Your task to perform on an android device: What's the weather today? Image 0: 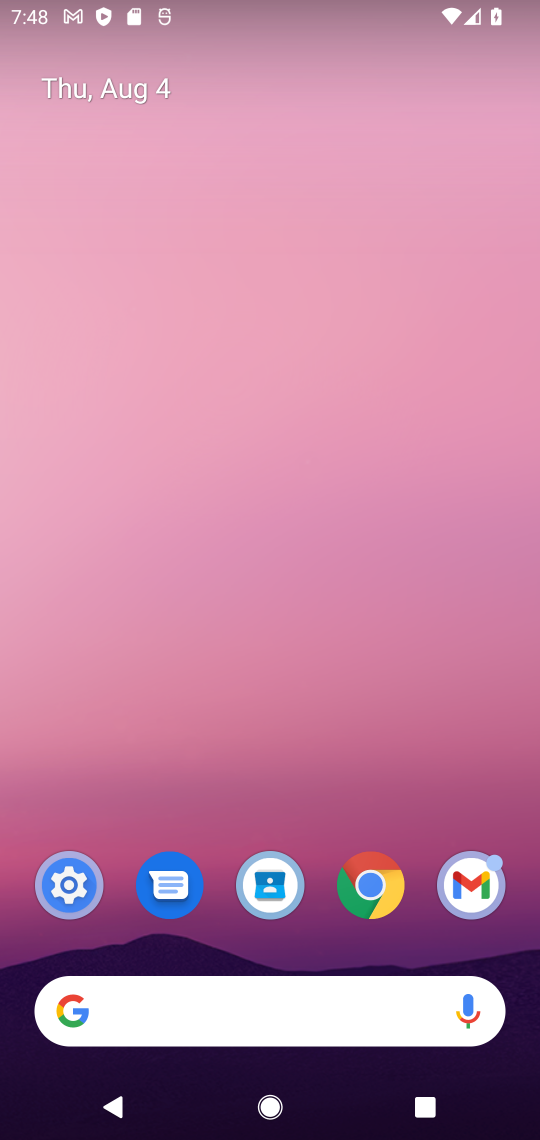
Step 0: press home button
Your task to perform on an android device: What's the weather today? Image 1: 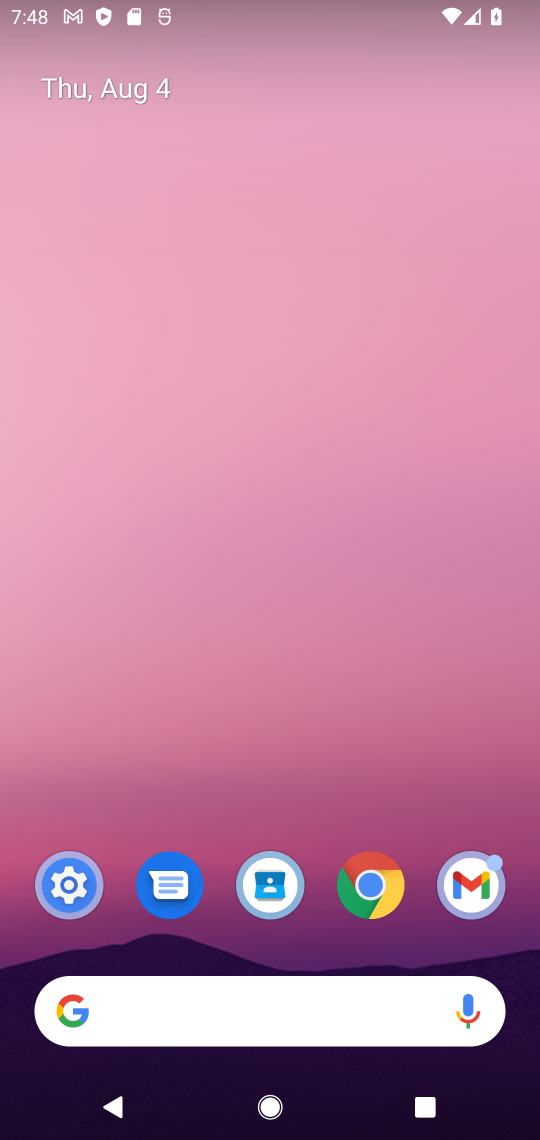
Step 1: press home button
Your task to perform on an android device: What's the weather today? Image 2: 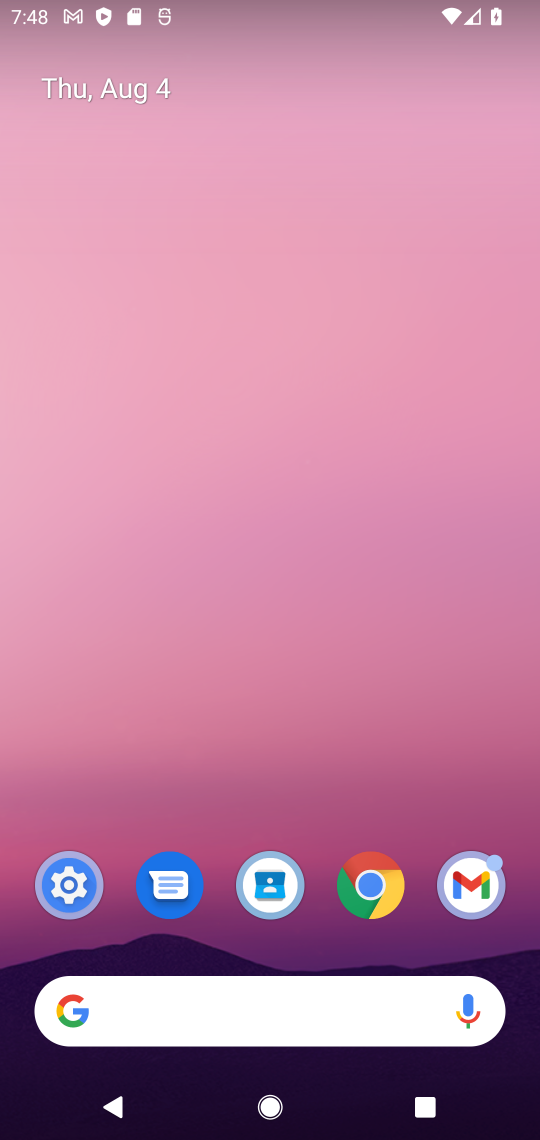
Step 2: click (366, 882)
Your task to perform on an android device: What's the weather today? Image 3: 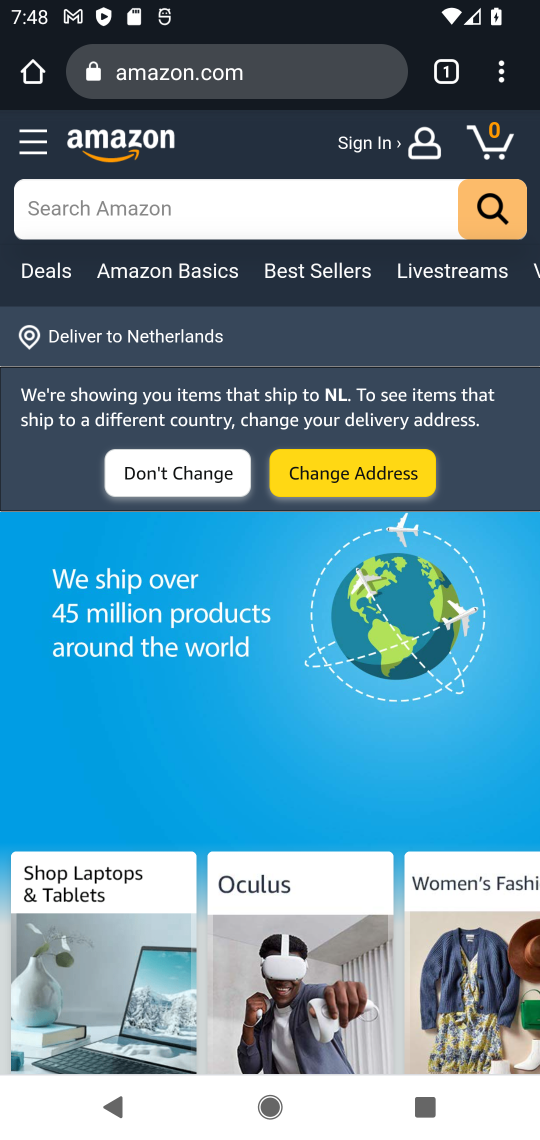
Step 3: click (254, 77)
Your task to perform on an android device: What's the weather today? Image 4: 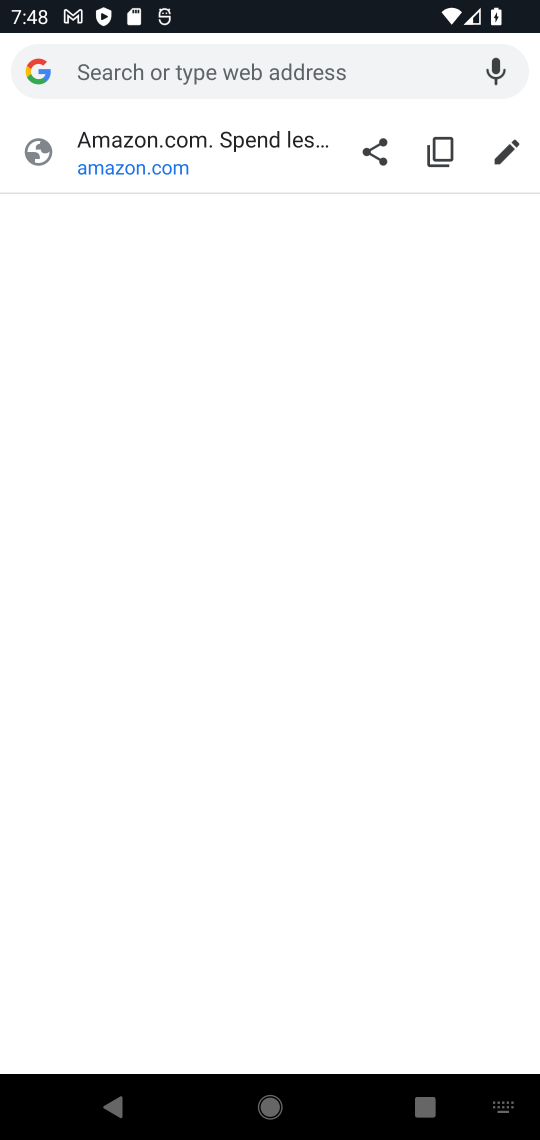
Step 4: type "What's the weather today"
Your task to perform on an android device: What's the weather today? Image 5: 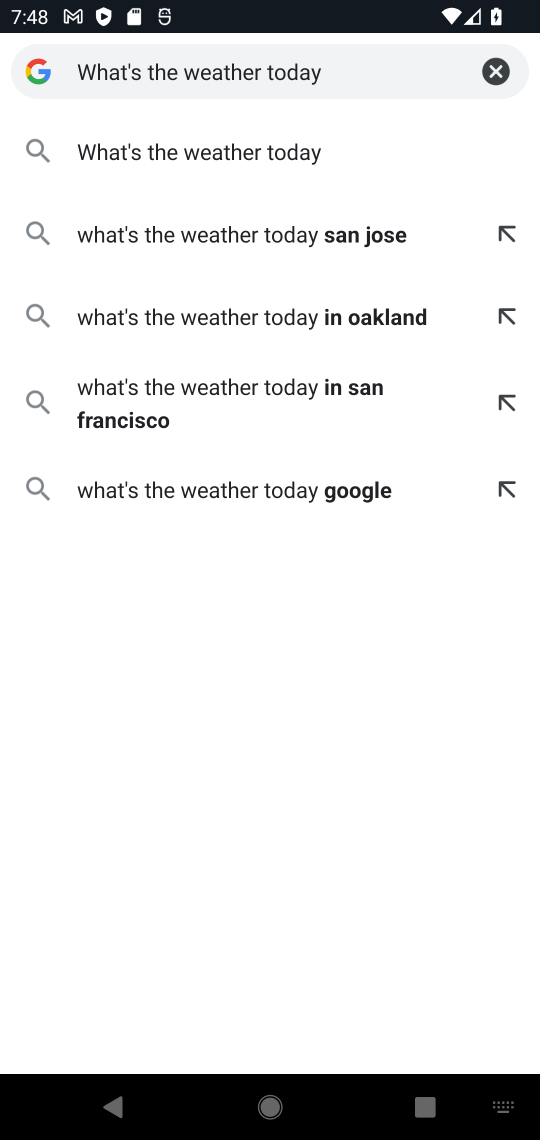
Step 5: click (223, 155)
Your task to perform on an android device: What's the weather today? Image 6: 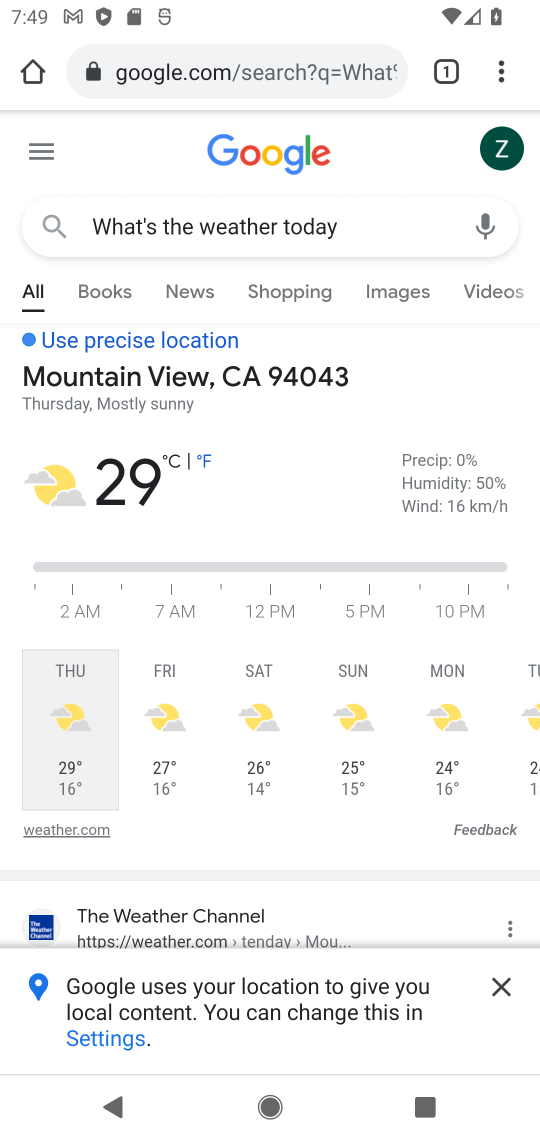
Step 6: task complete